Your task to perform on an android device: manage bookmarks in the chrome app Image 0: 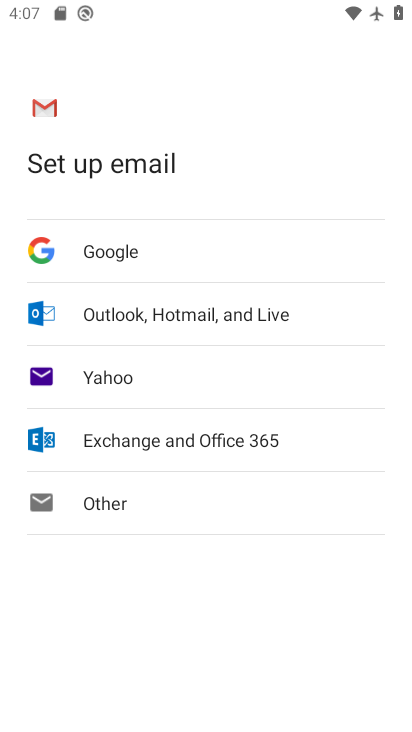
Step 0: press home button
Your task to perform on an android device: manage bookmarks in the chrome app Image 1: 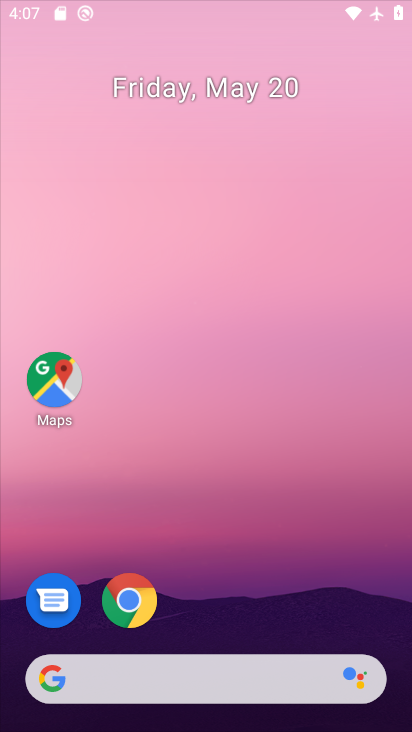
Step 1: drag from (281, 534) to (228, 709)
Your task to perform on an android device: manage bookmarks in the chrome app Image 2: 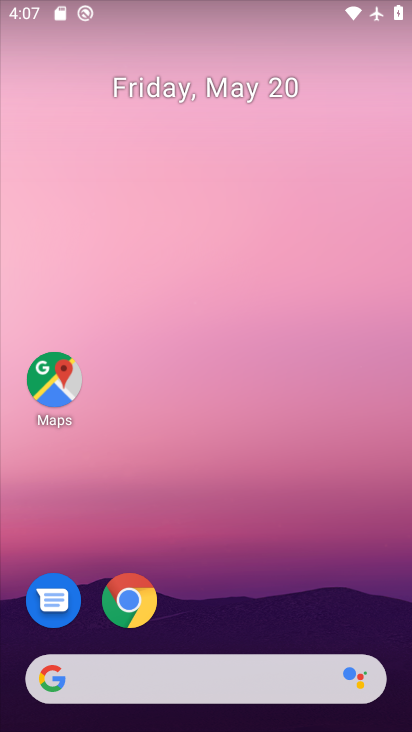
Step 2: click (139, 603)
Your task to perform on an android device: manage bookmarks in the chrome app Image 3: 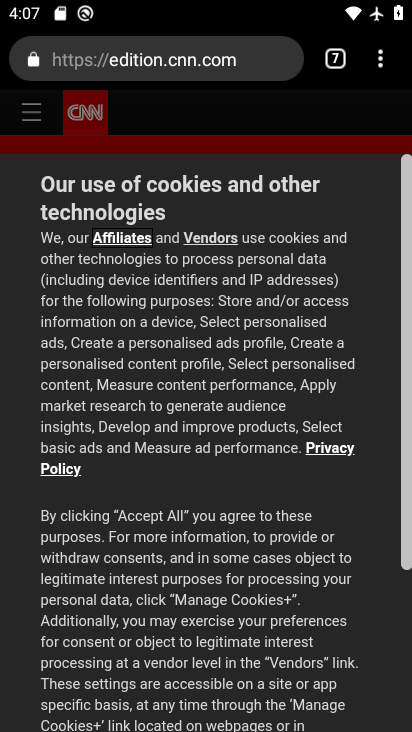
Step 3: click (382, 66)
Your task to perform on an android device: manage bookmarks in the chrome app Image 4: 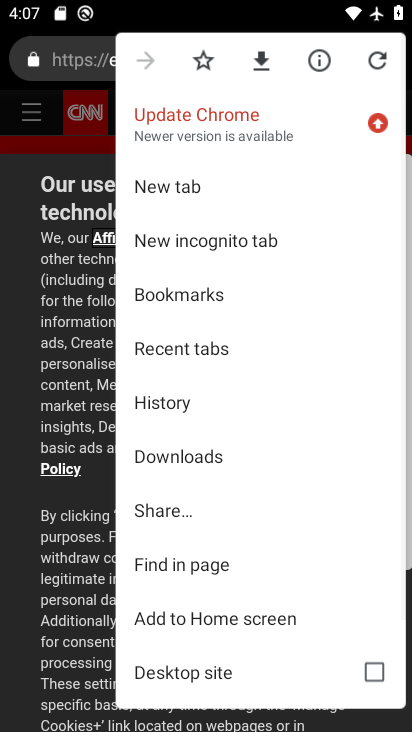
Step 4: click (209, 312)
Your task to perform on an android device: manage bookmarks in the chrome app Image 5: 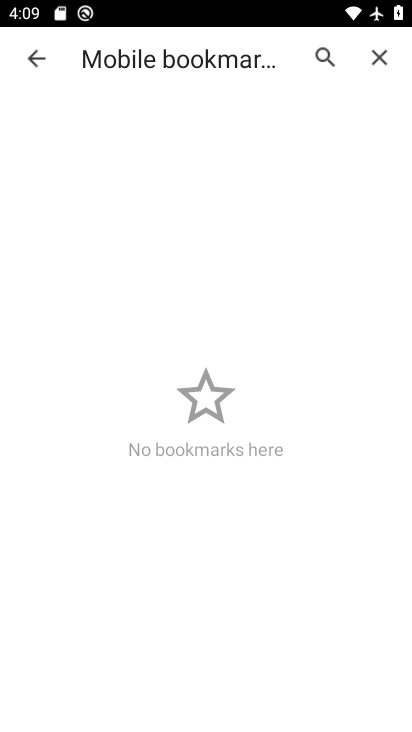
Step 5: task complete